Your task to perform on an android device: How much does a 2 bedroom apartment rent for in Seattle? Image 0: 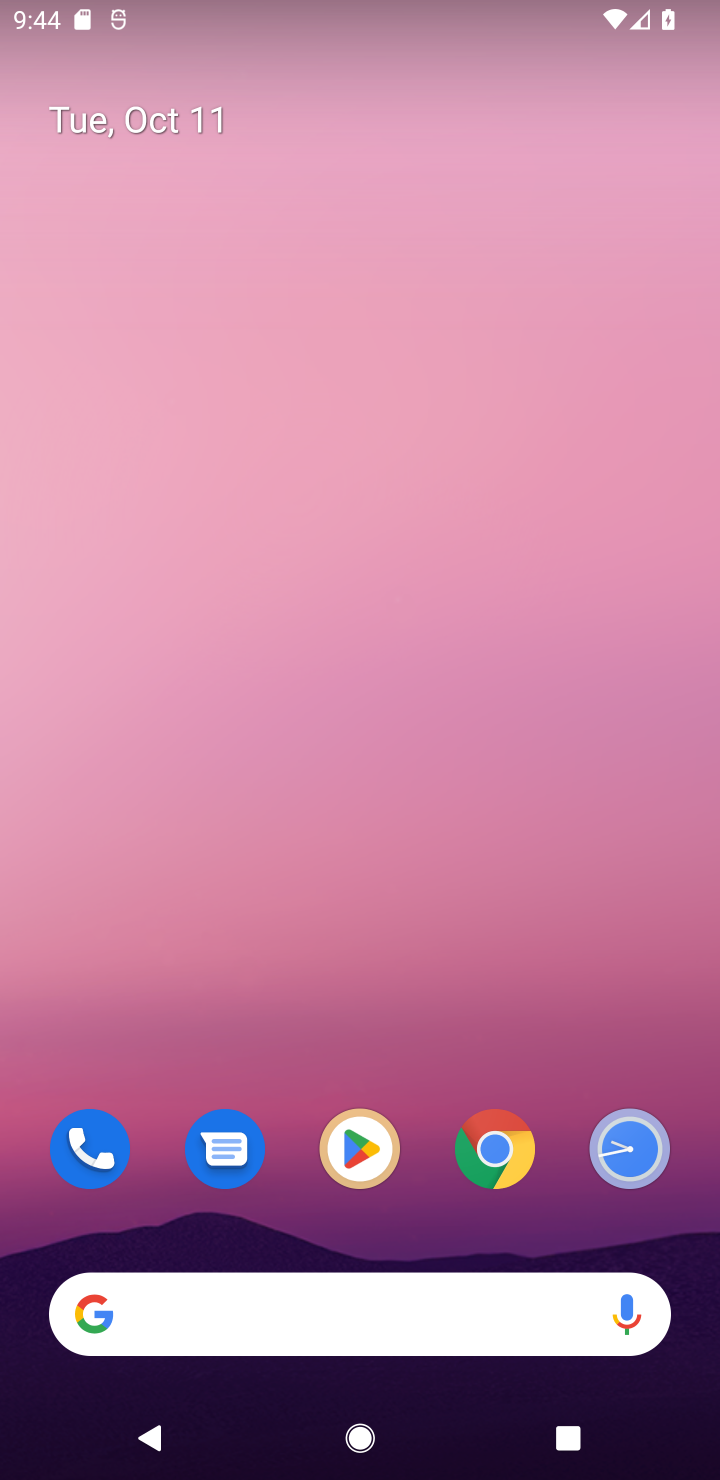
Step 0: click (362, 1202)
Your task to perform on an android device: How much does a 2 bedroom apartment rent for in Seattle? Image 1: 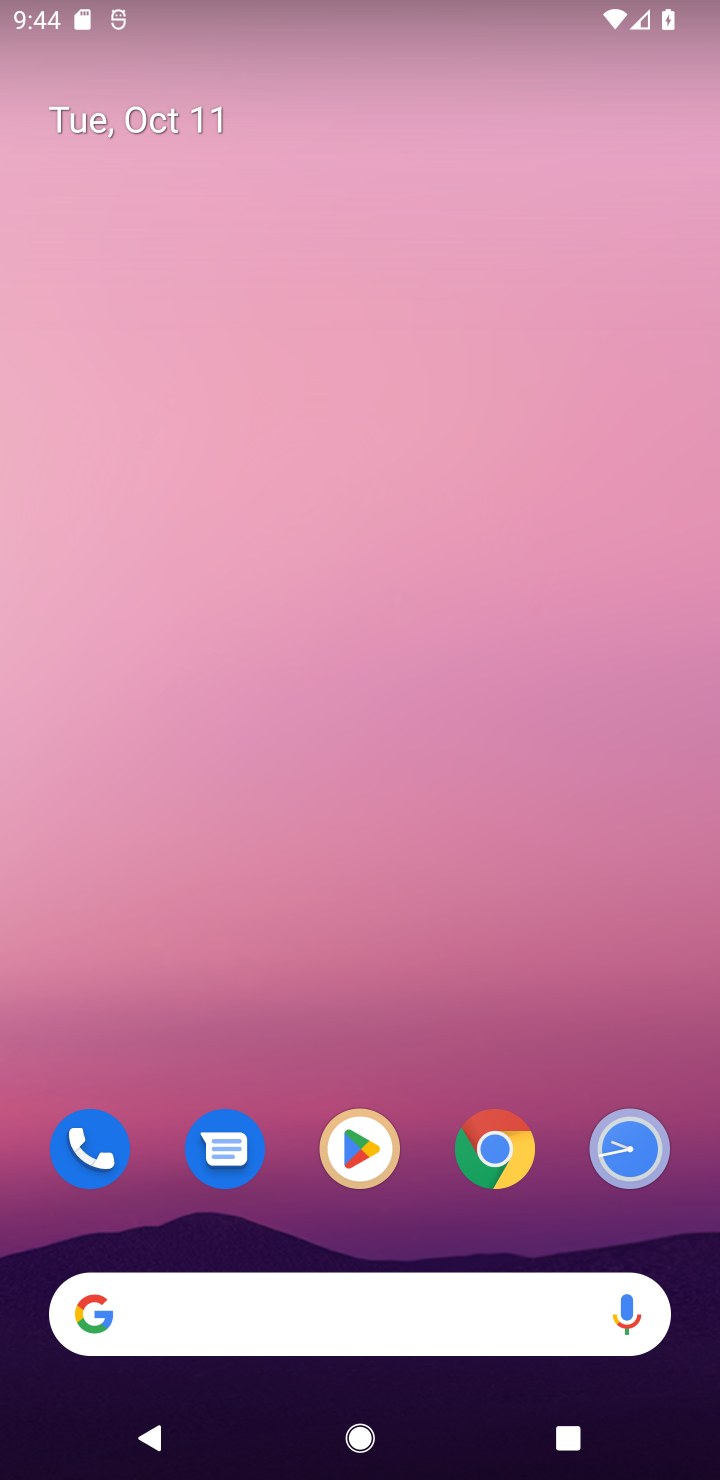
Step 1: drag from (340, 992) to (340, 385)
Your task to perform on an android device: How much does a 2 bedroom apartment rent for in Seattle? Image 2: 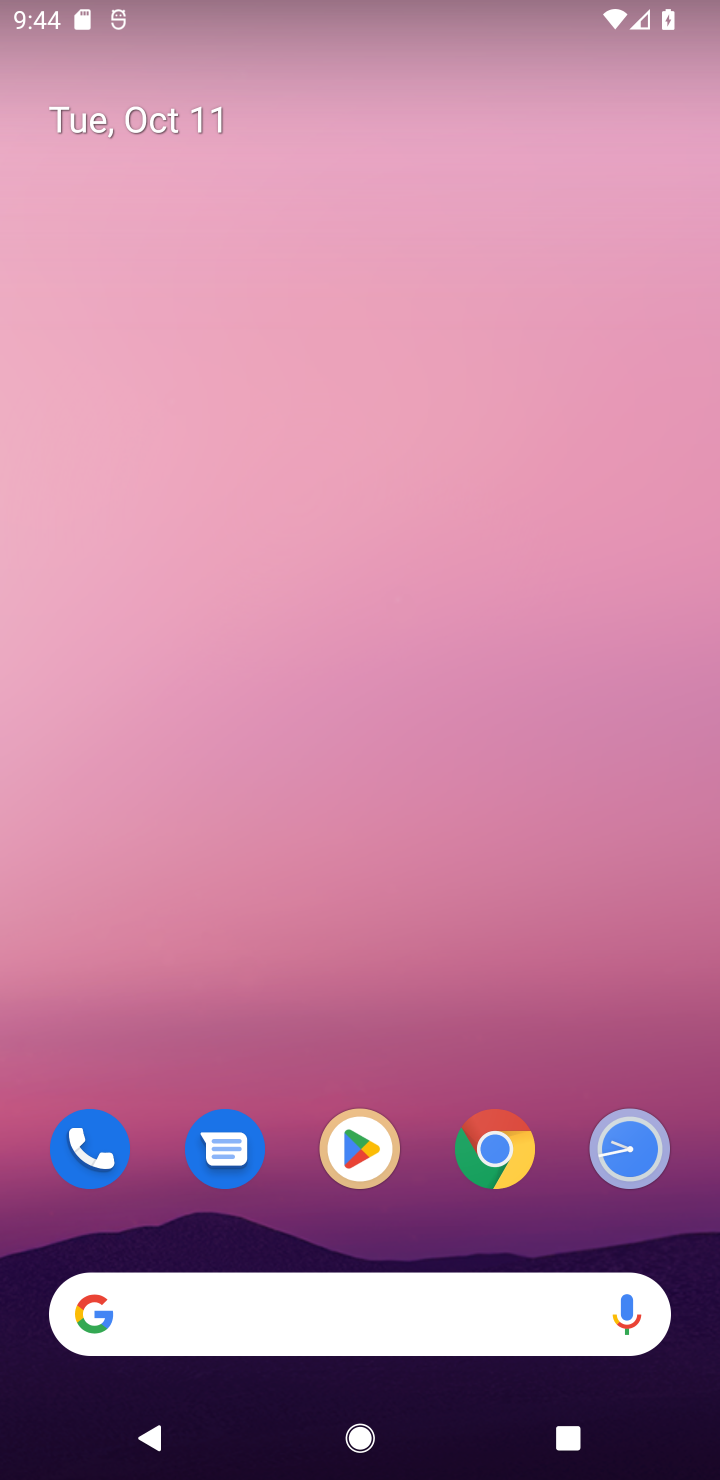
Step 2: drag from (360, 1088) to (338, 184)
Your task to perform on an android device: How much does a 2 bedroom apartment rent for in Seattle? Image 3: 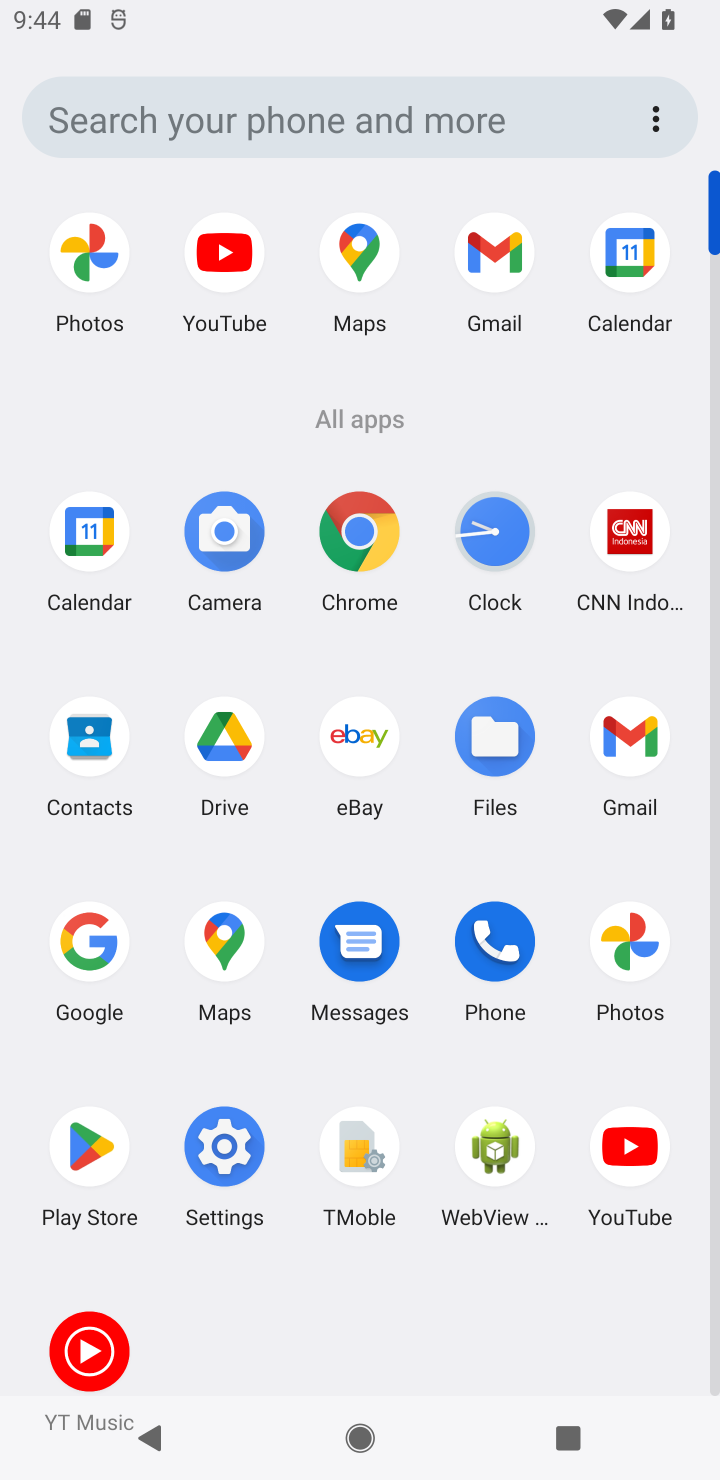
Step 3: click (104, 958)
Your task to perform on an android device: How much does a 2 bedroom apartment rent for in Seattle? Image 4: 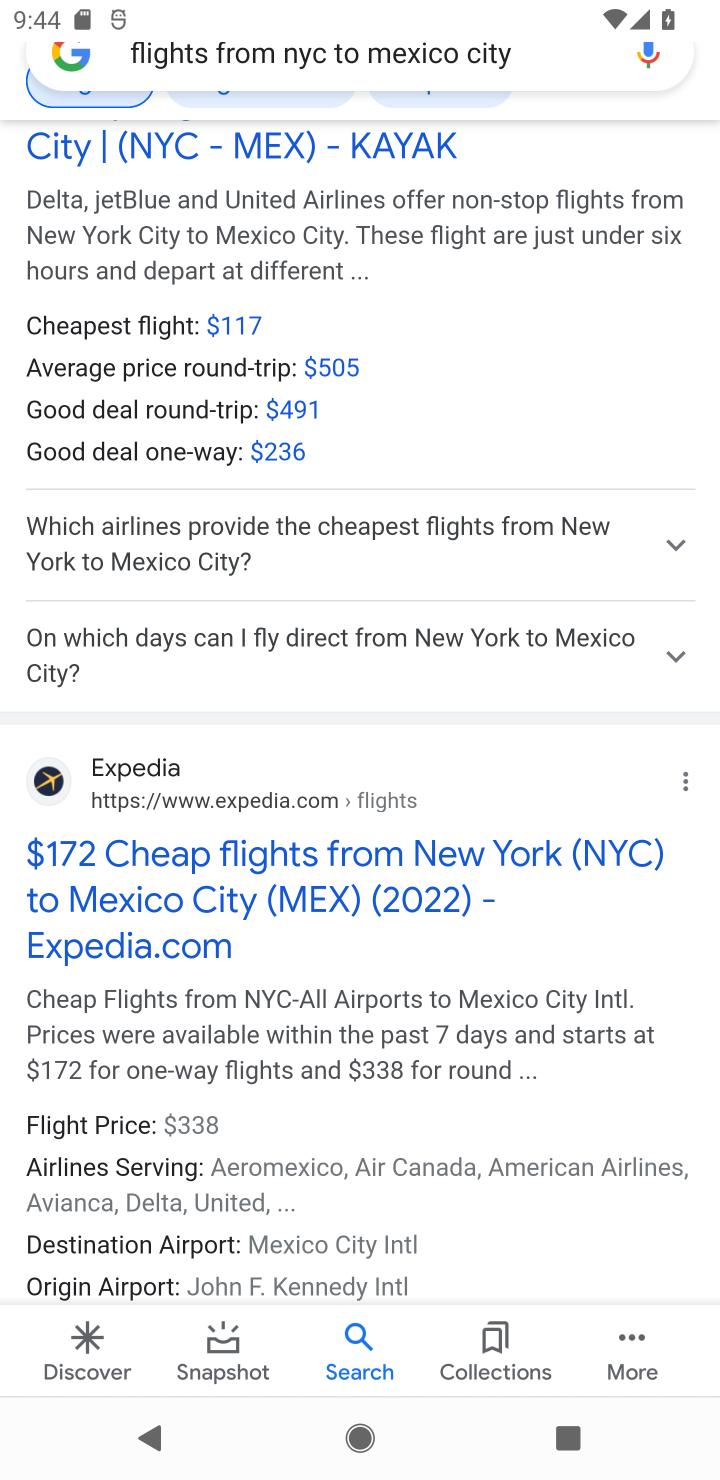
Step 4: click (376, 51)
Your task to perform on an android device: How much does a 2 bedroom apartment rent for in Seattle? Image 5: 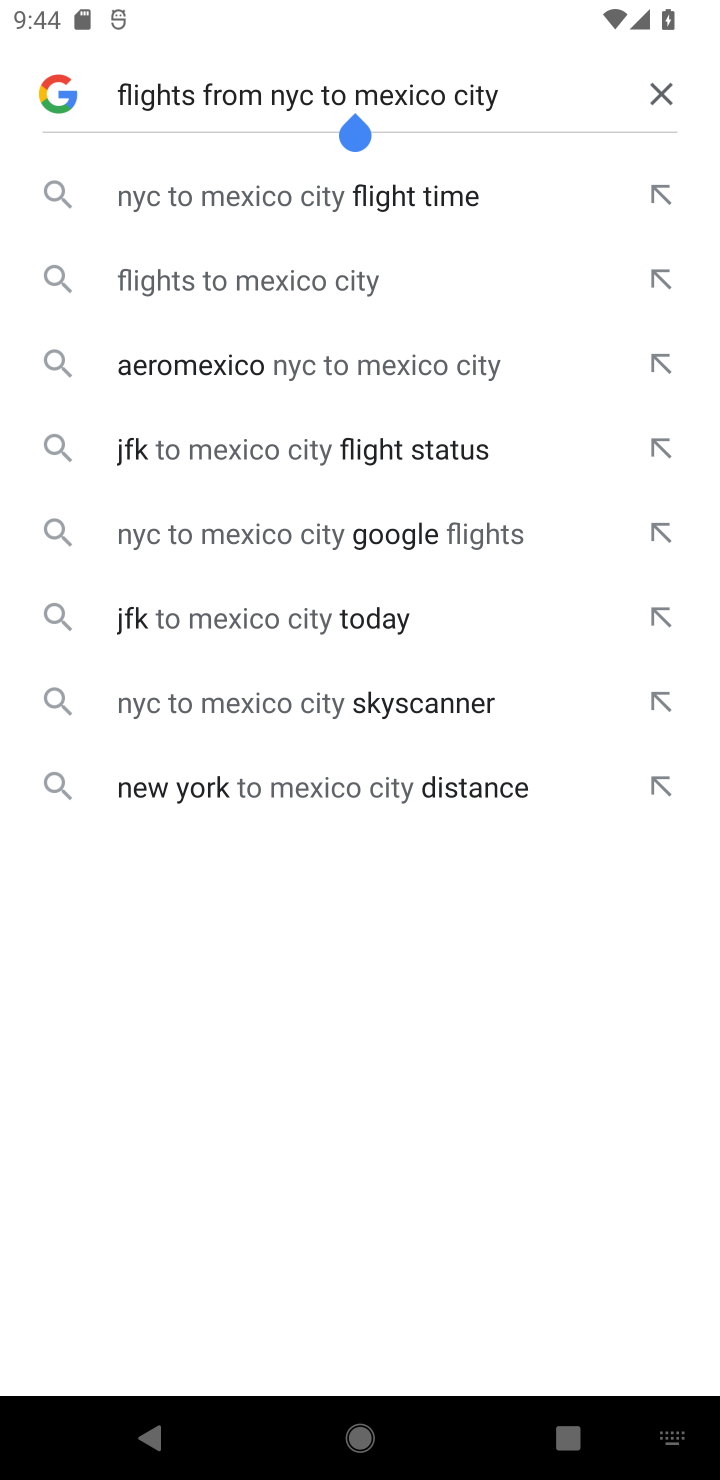
Step 5: click (673, 89)
Your task to perform on an android device: How much does a 2 bedroom apartment rent for in Seattle? Image 6: 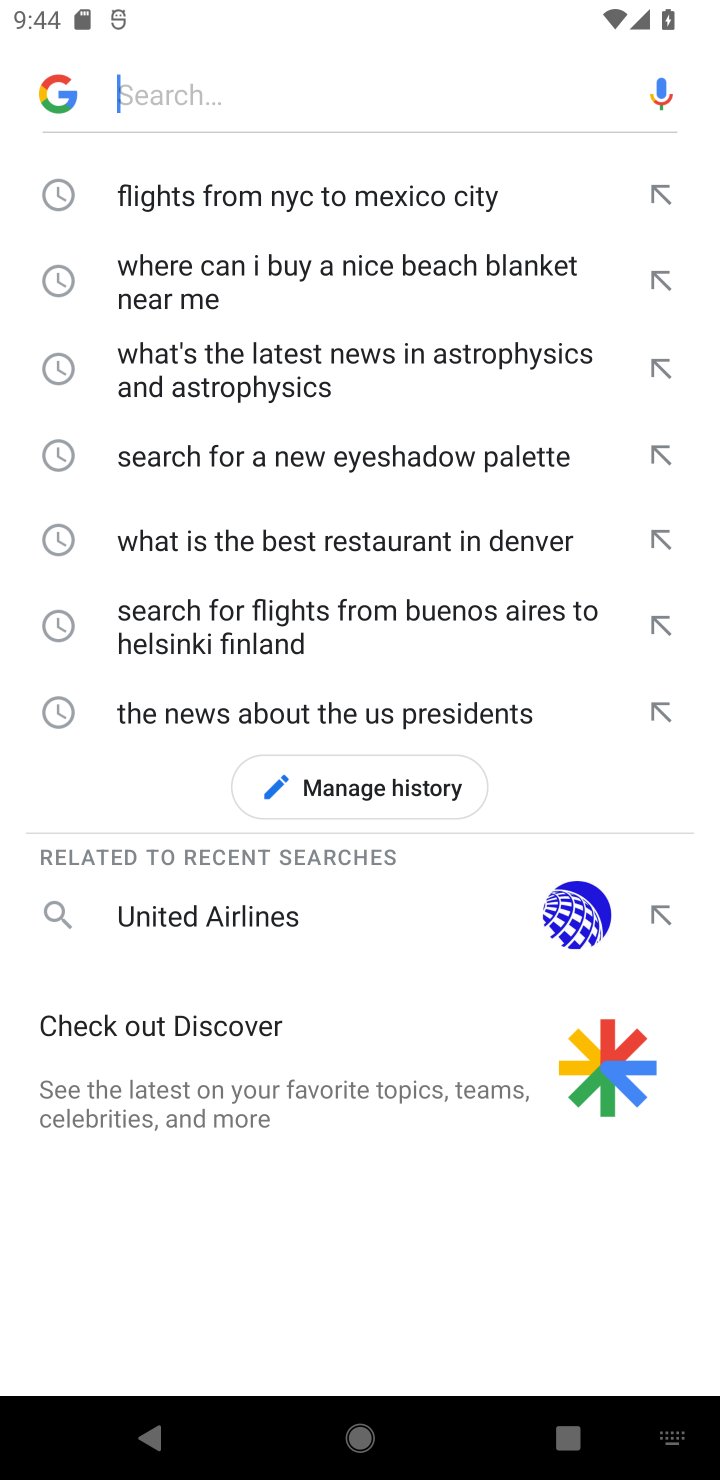
Step 6: type "How much does a 2 bedroom apartment rent for in Seattle?"
Your task to perform on an android device: How much does a 2 bedroom apartment rent for in Seattle? Image 7: 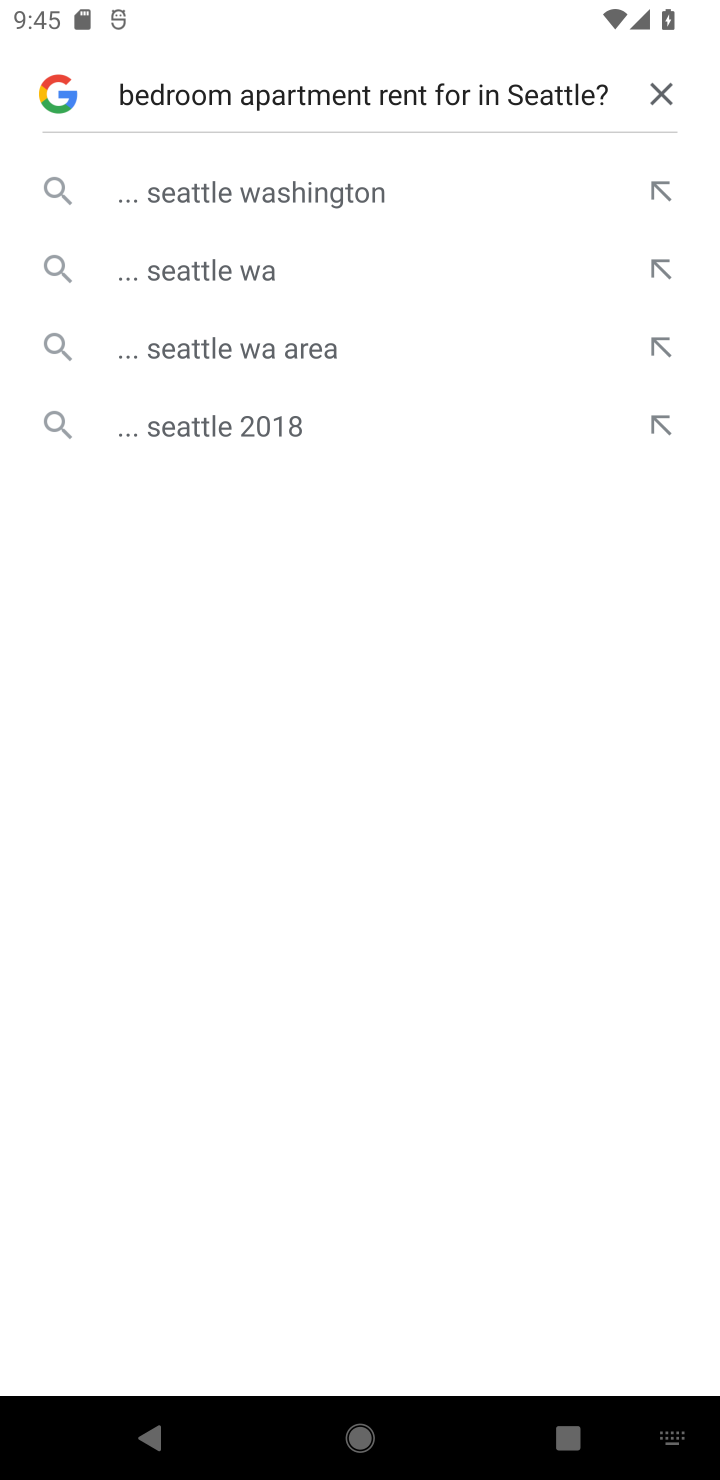
Step 7: click (281, 187)
Your task to perform on an android device: How much does a 2 bedroom apartment rent for in Seattle? Image 8: 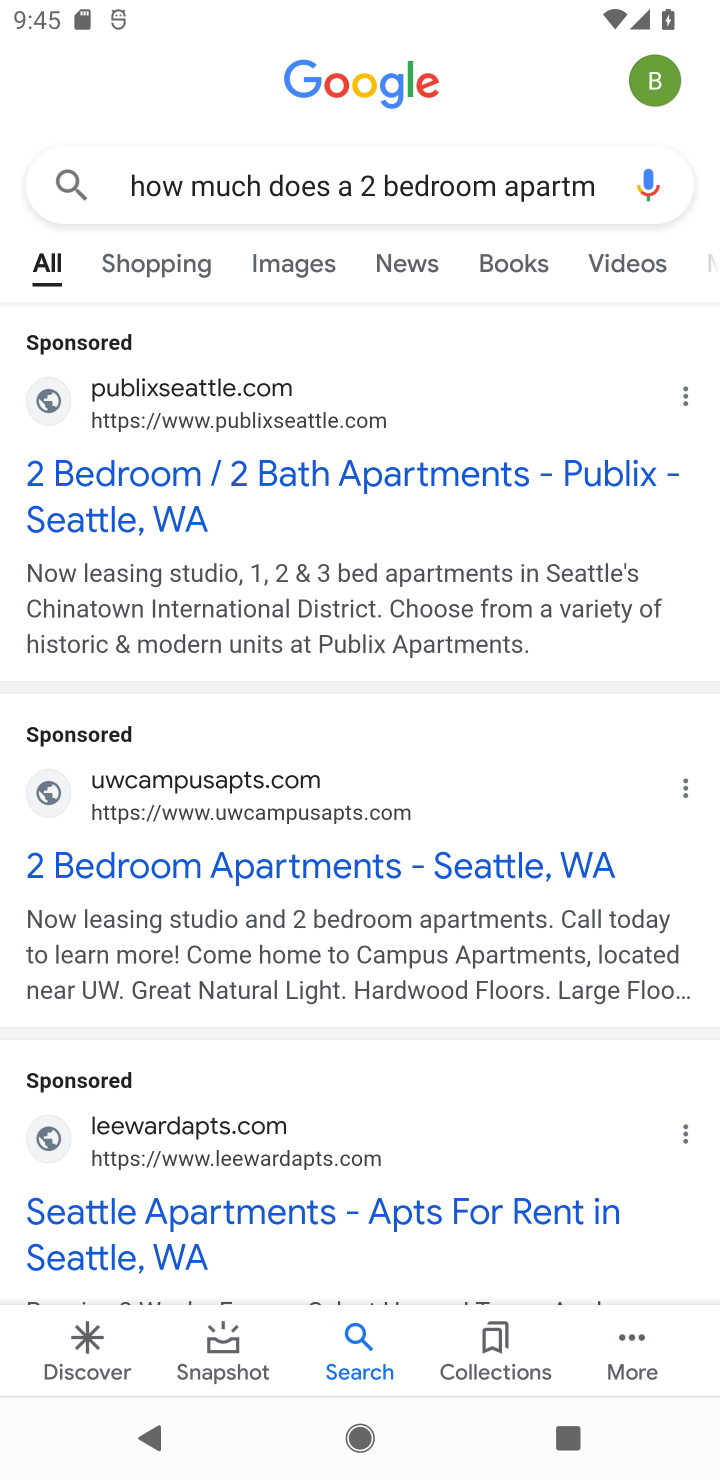
Step 8: task complete